Your task to perform on an android device: turn on bluetooth scan Image 0: 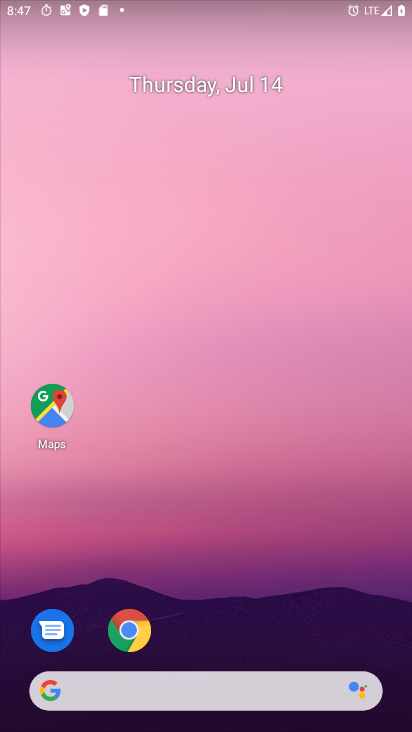
Step 0: drag from (212, 718) to (177, 161)
Your task to perform on an android device: turn on bluetooth scan Image 1: 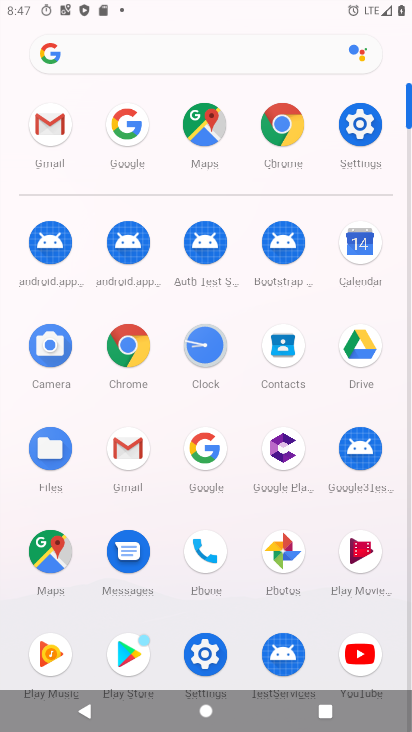
Step 1: click (354, 126)
Your task to perform on an android device: turn on bluetooth scan Image 2: 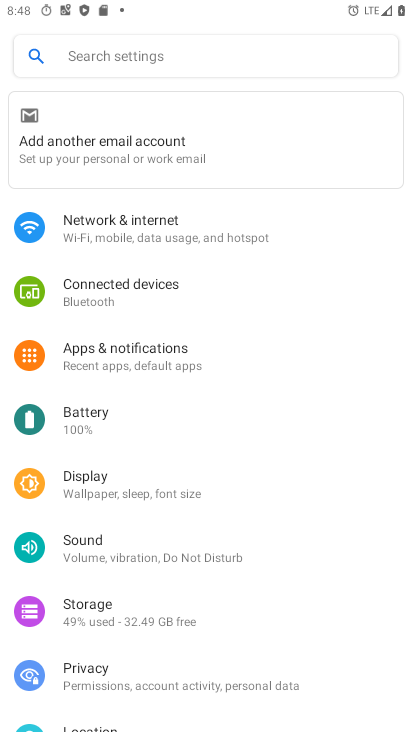
Step 2: click (80, 723)
Your task to perform on an android device: turn on bluetooth scan Image 3: 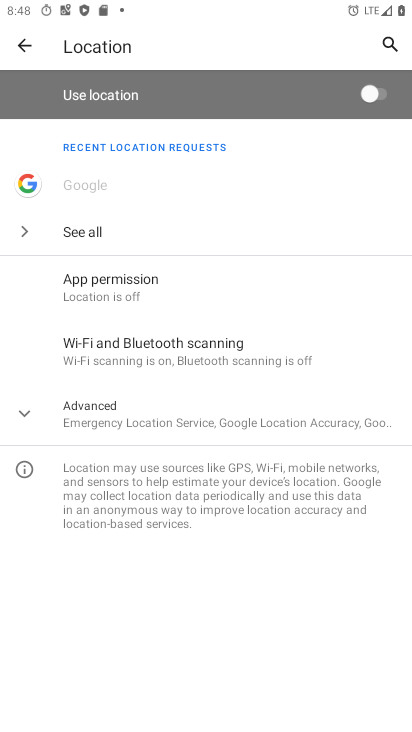
Step 3: click (150, 347)
Your task to perform on an android device: turn on bluetooth scan Image 4: 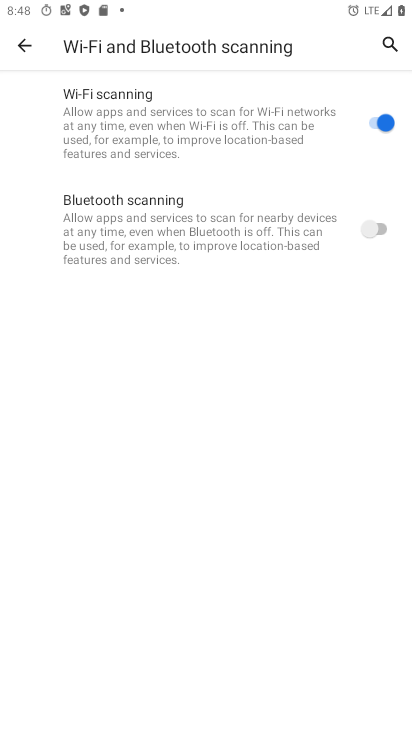
Step 4: click (381, 234)
Your task to perform on an android device: turn on bluetooth scan Image 5: 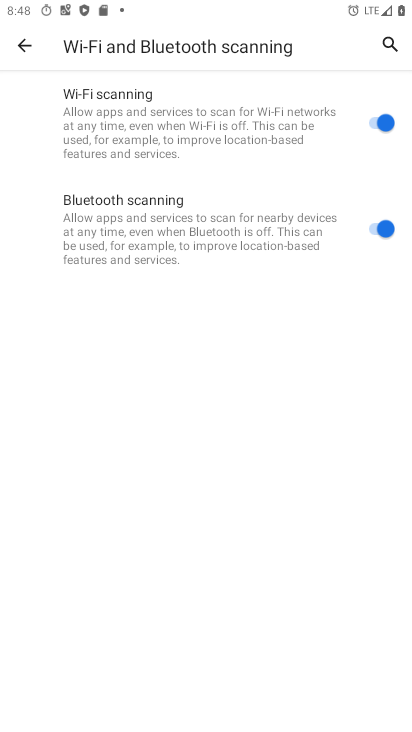
Step 5: task complete